Your task to perform on an android device: turn on the 24-hour format for clock Image 0: 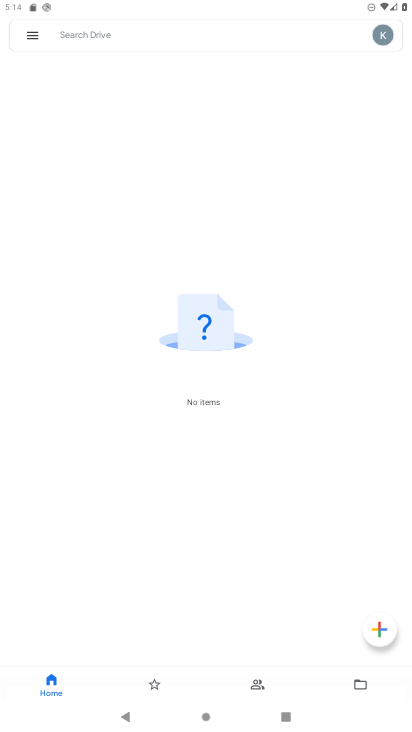
Step 0: press home button
Your task to perform on an android device: turn on the 24-hour format for clock Image 1: 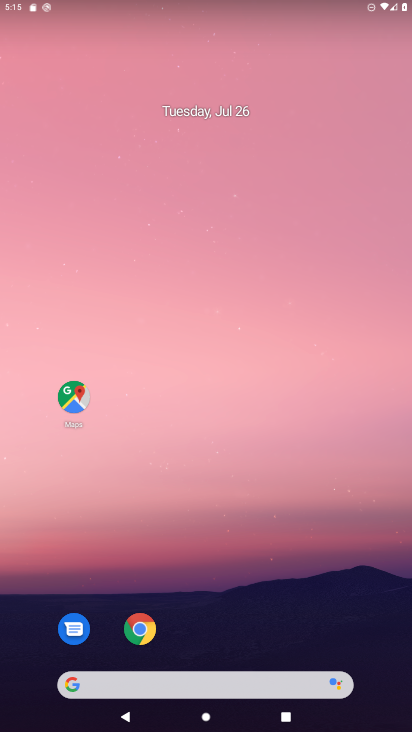
Step 1: click (132, 25)
Your task to perform on an android device: turn on the 24-hour format for clock Image 2: 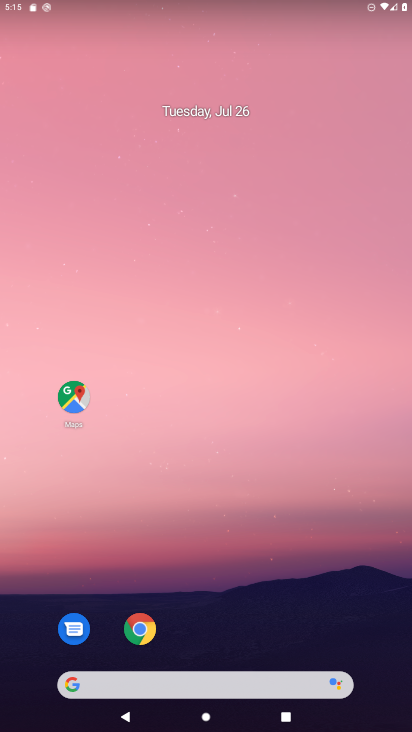
Step 2: drag from (194, 623) to (129, 289)
Your task to perform on an android device: turn on the 24-hour format for clock Image 3: 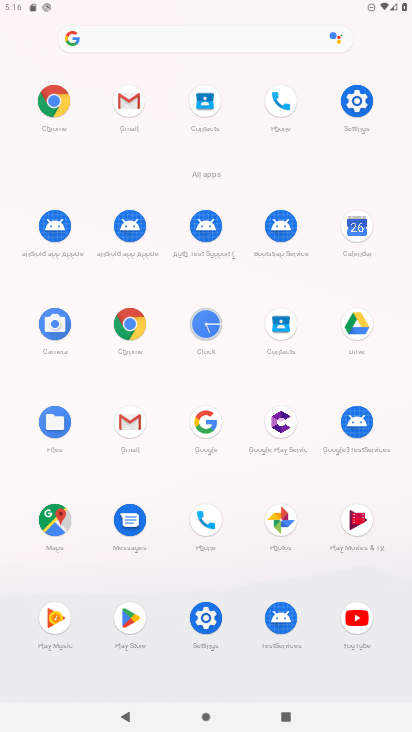
Step 3: click (201, 331)
Your task to perform on an android device: turn on the 24-hour format for clock Image 4: 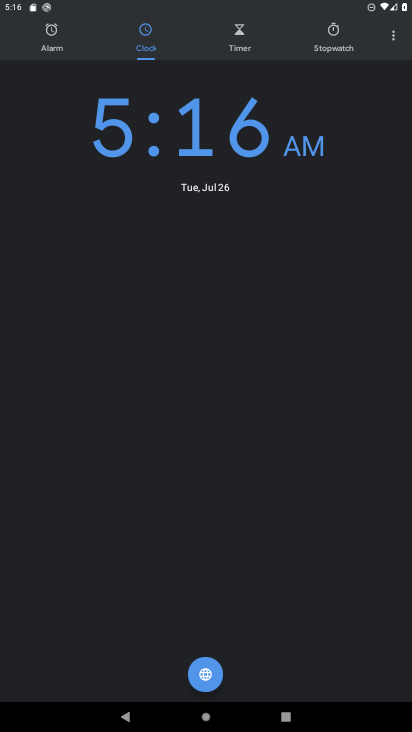
Step 4: click (395, 41)
Your task to perform on an android device: turn on the 24-hour format for clock Image 5: 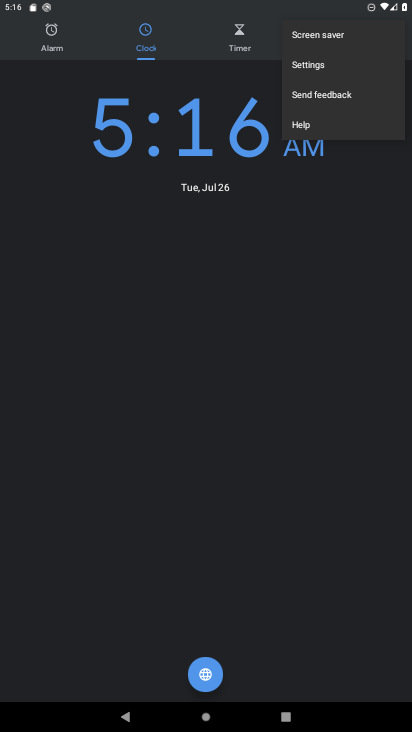
Step 5: click (322, 65)
Your task to perform on an android device: turn on the 24-hour format for clock Image 6: 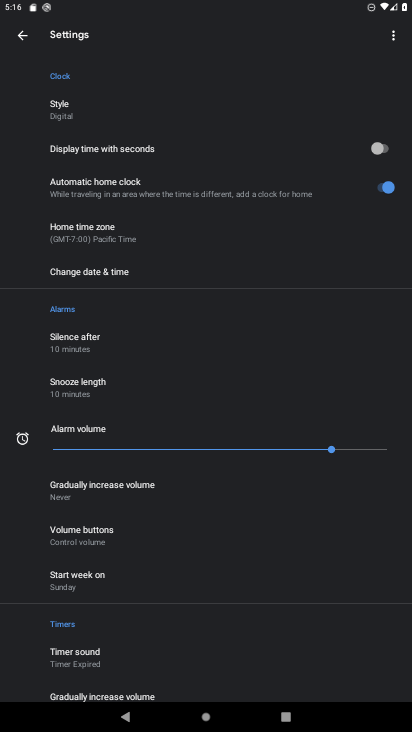
Step 6: click (98, 278)
Your task to perform on an android device: turn on the 24-hour format for clock Image 7: 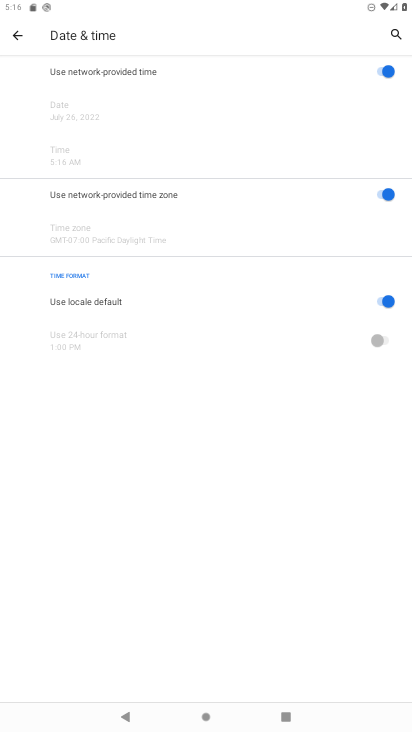
Step 7: click (391, 307)
Your task to perform on an android device: turn on the 24-hour format for clock Image 8: 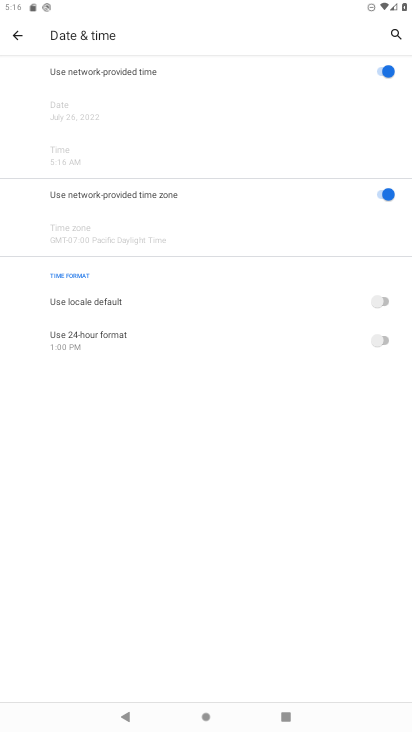
Step 8: click (386, 343)
Your task to perform on an android device: turn on the 24-hour format for clock Image 9: 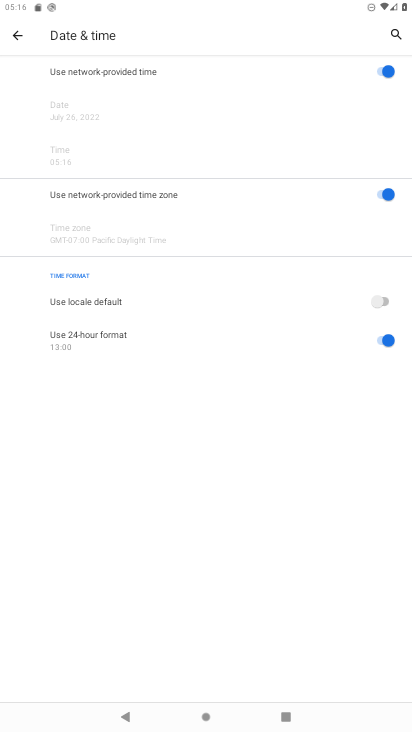
Step 9: task complete